Your task to perform on an android device: change your default location settings in chrome Image 0: 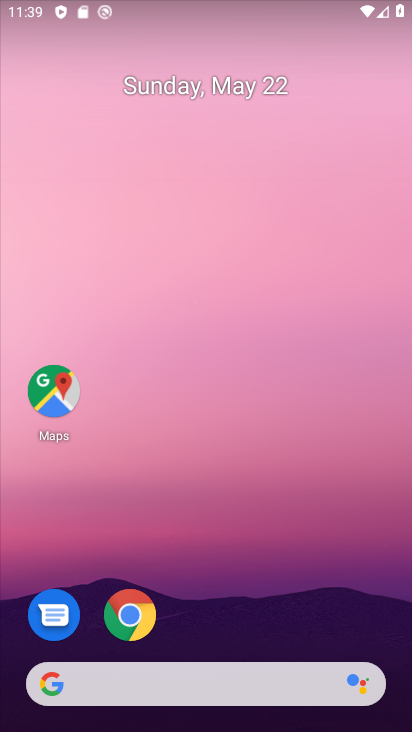
Step 0: click (110, 612)
Your task to perform on an android device: change your default location settings in chrome Image 1: 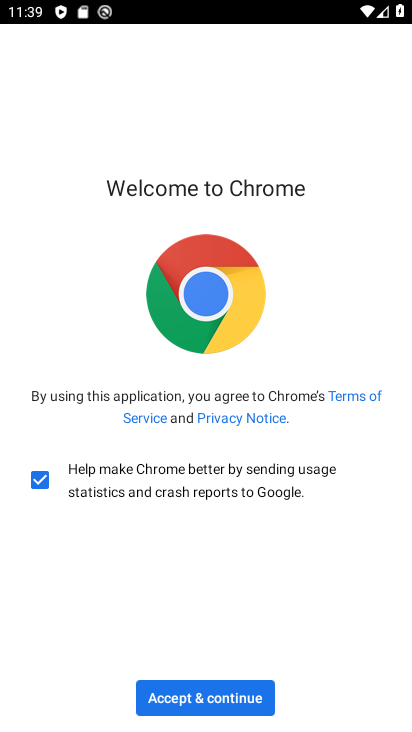
Step 1: click (201, 715)
Your task to perform on an android device: change your default location settings in chrome Image 2: 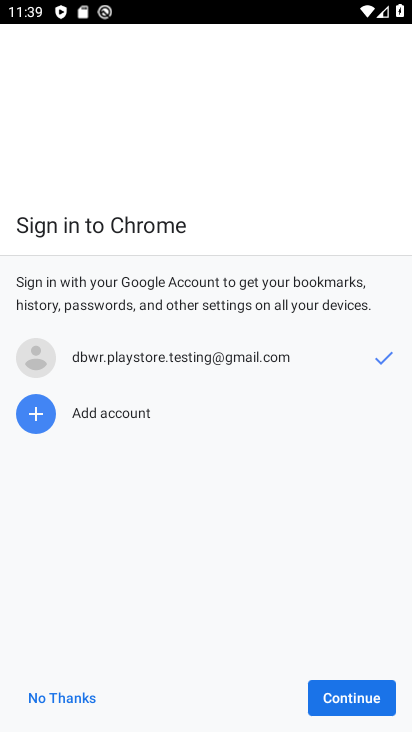
Step 2: click (376, 693)
Your task to perform on an android device: change your default location settings in chrome Image 3: 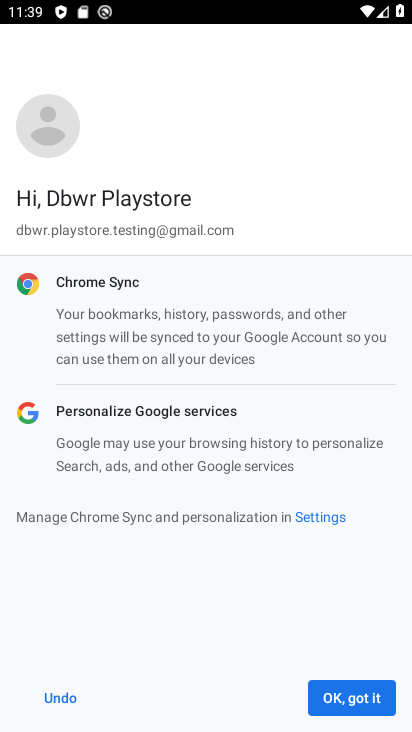
Step 3: click (376, 693)
Your task to perform on an android device: change your default location settings in chrome Image 4: 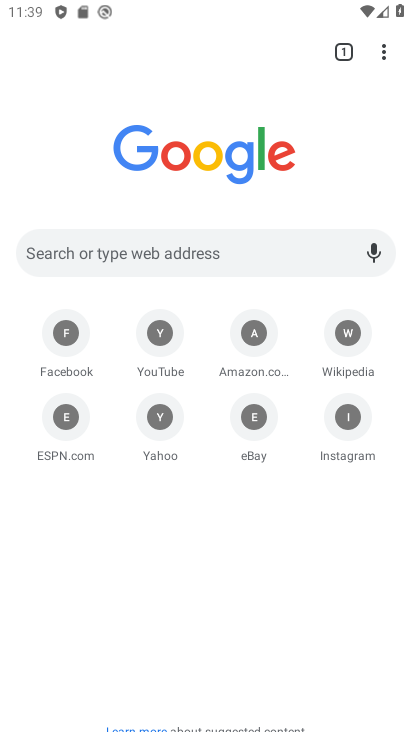
Step 4: drag from (381, 56) to (214, 436)
Your task to perform on an android device: change your default location settings in chrome Image 5: 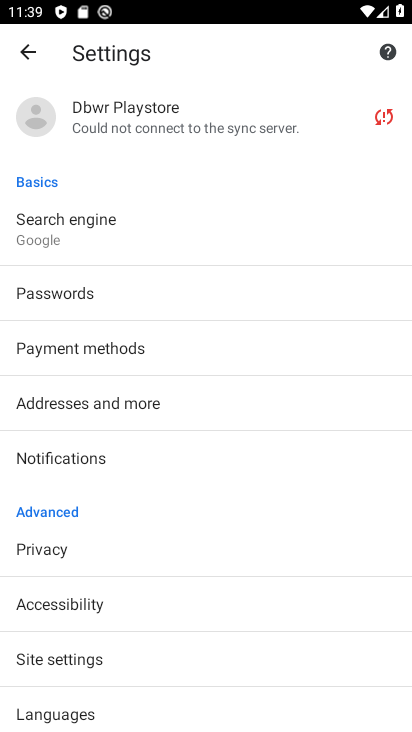
Step 5: drag from (139, 645) to (223, 142)
Your task to perform on an android device: change your default location settings in chrome Image 6: 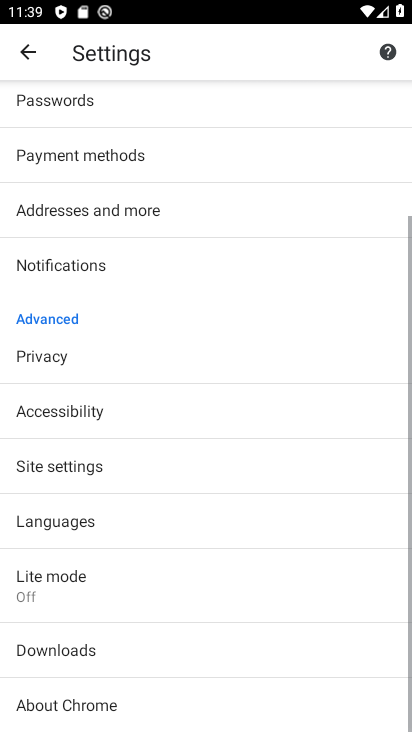
Step 6: click (86, 460)
Your task to perform on an android device: change your default location settings in chrome Image 7: 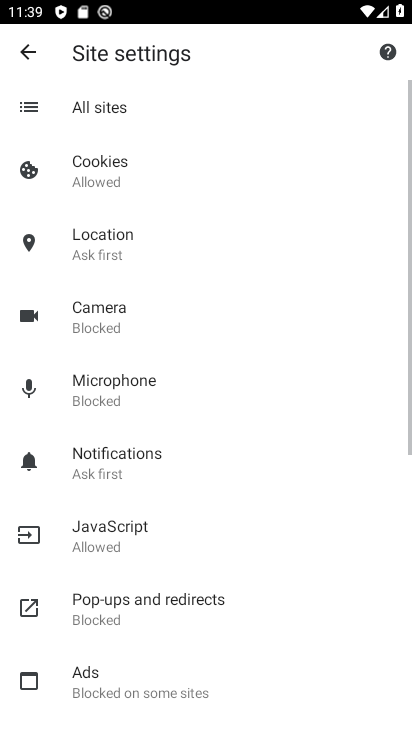
Step 7: click (122, 263)
Your task to perform on an android device: change your default location settings in chrome Image 8: 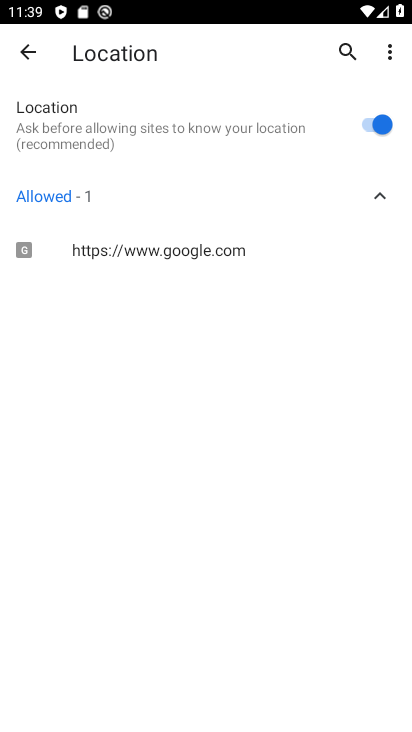
Step 8: click (370, 126)
Your task to perform on an android device: change your default location settings in chrome Image 9: 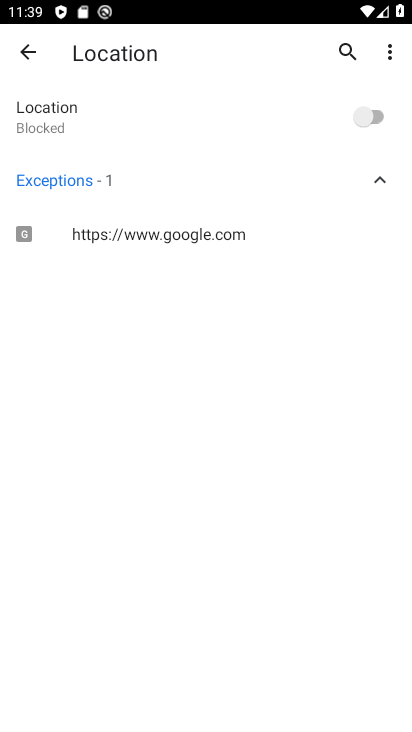
Step 9: task complete